Your task to perform on an android device: open app "VLC for Android" Image 0: 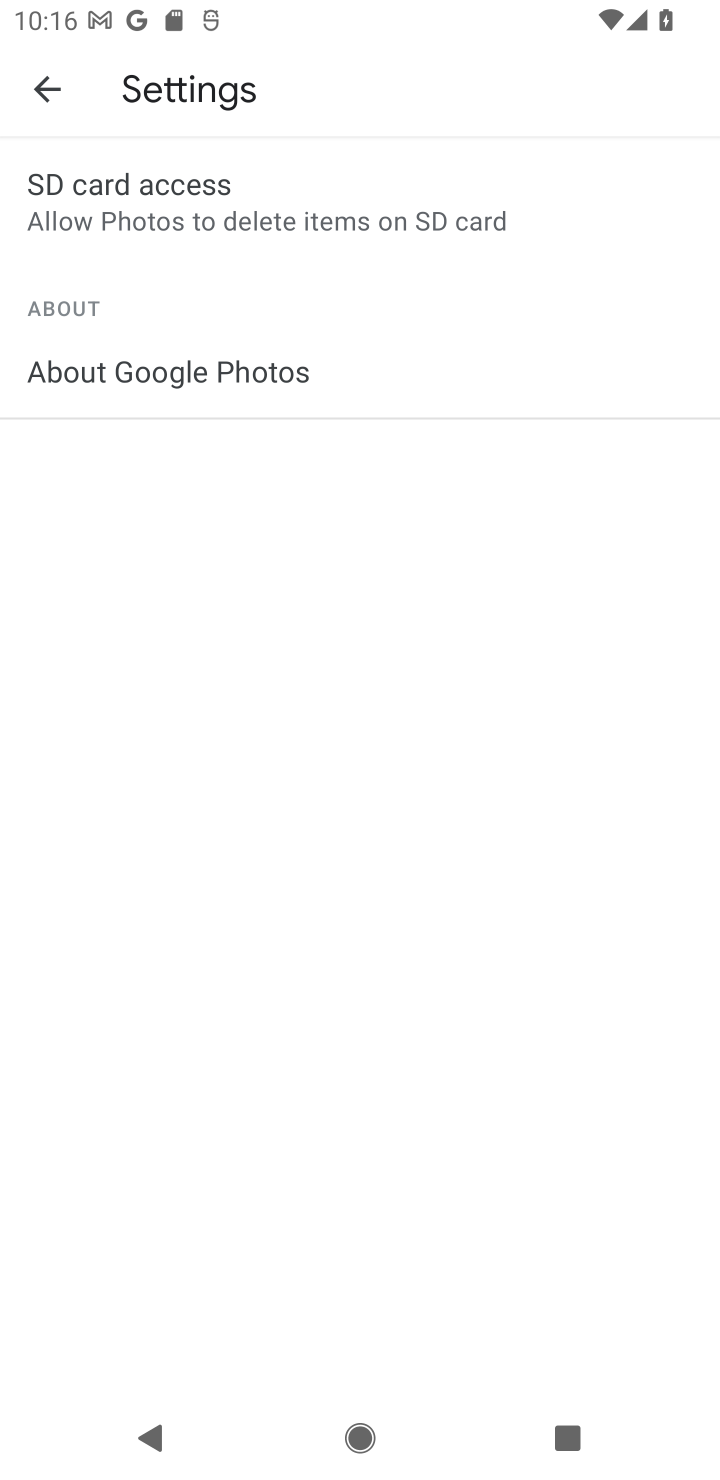
Step 0: press home button
Your task to perform on an android device: open app "VLC for Android" Image 1: 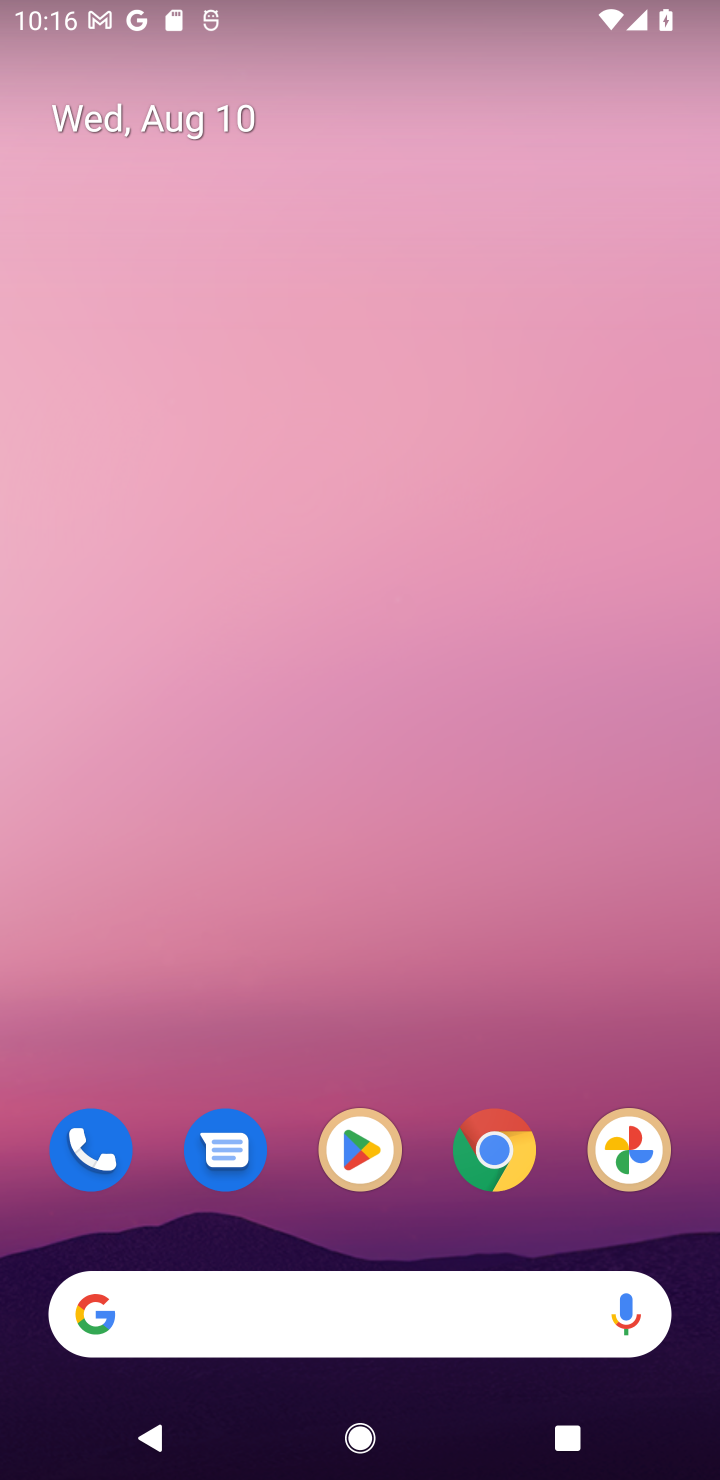
Step 1: click (343, 1179)
Your task to perform on an android device: open app "VLC for Android" Image 2: 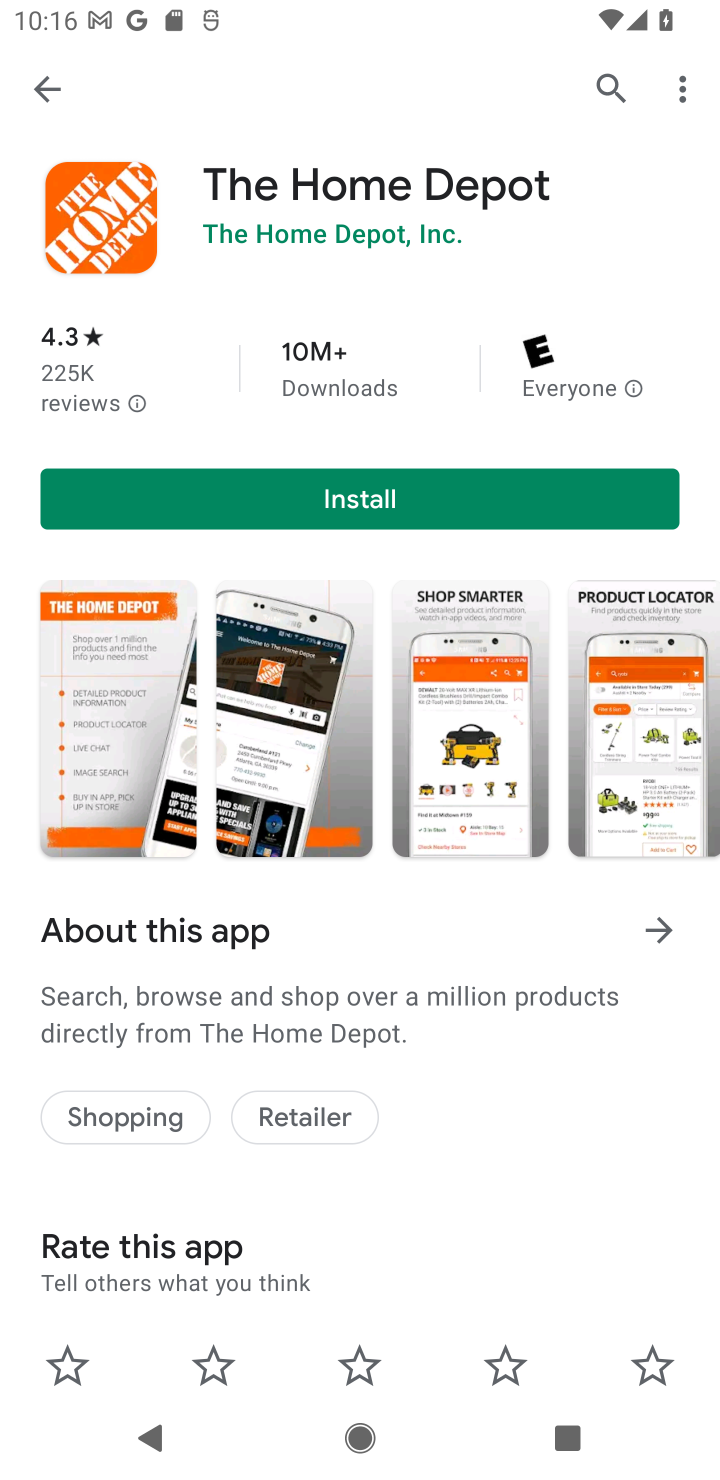
Step 2: click (597, 88)
Your task to perform on an android device: open app "VLC for Android" Image 3: 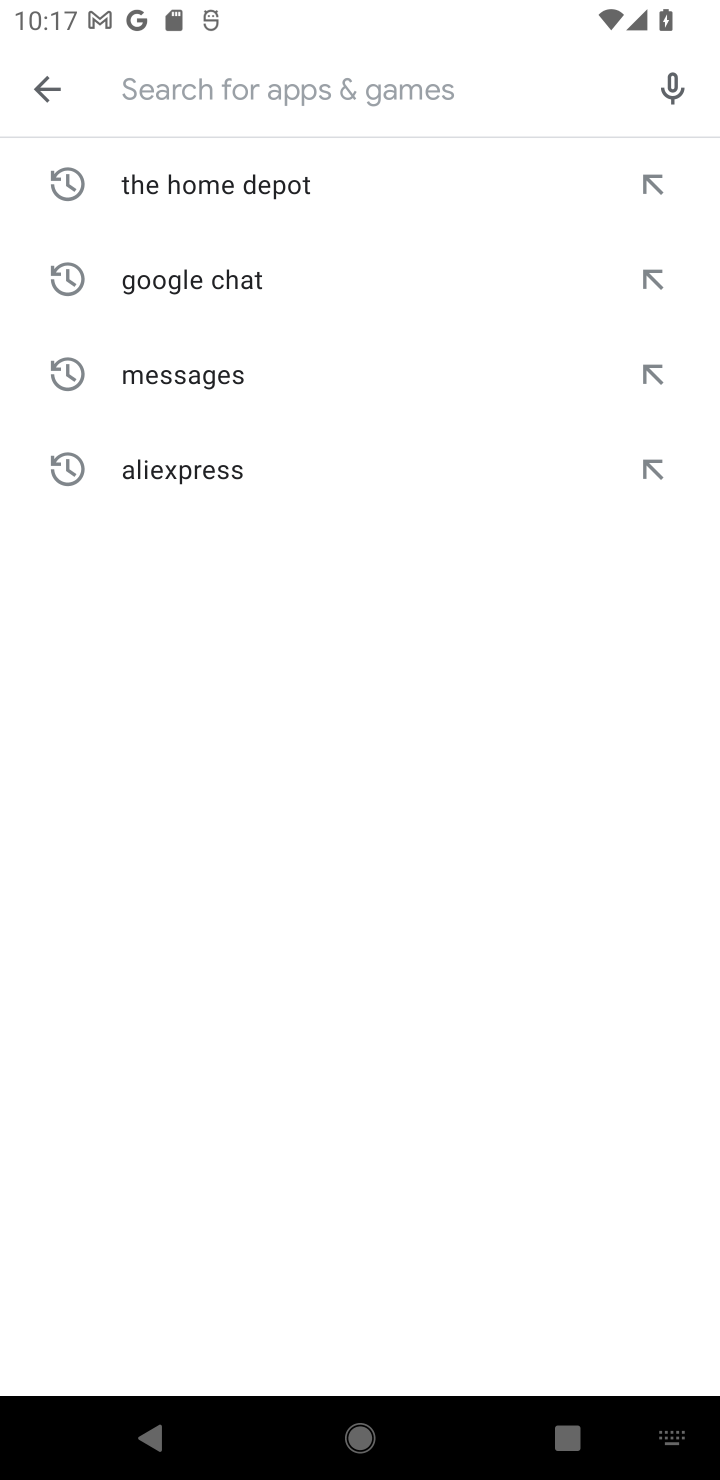
Step 3: type "VLC for Android"
Your task to perform on an android device: open app "VLC for Android" Image 4: 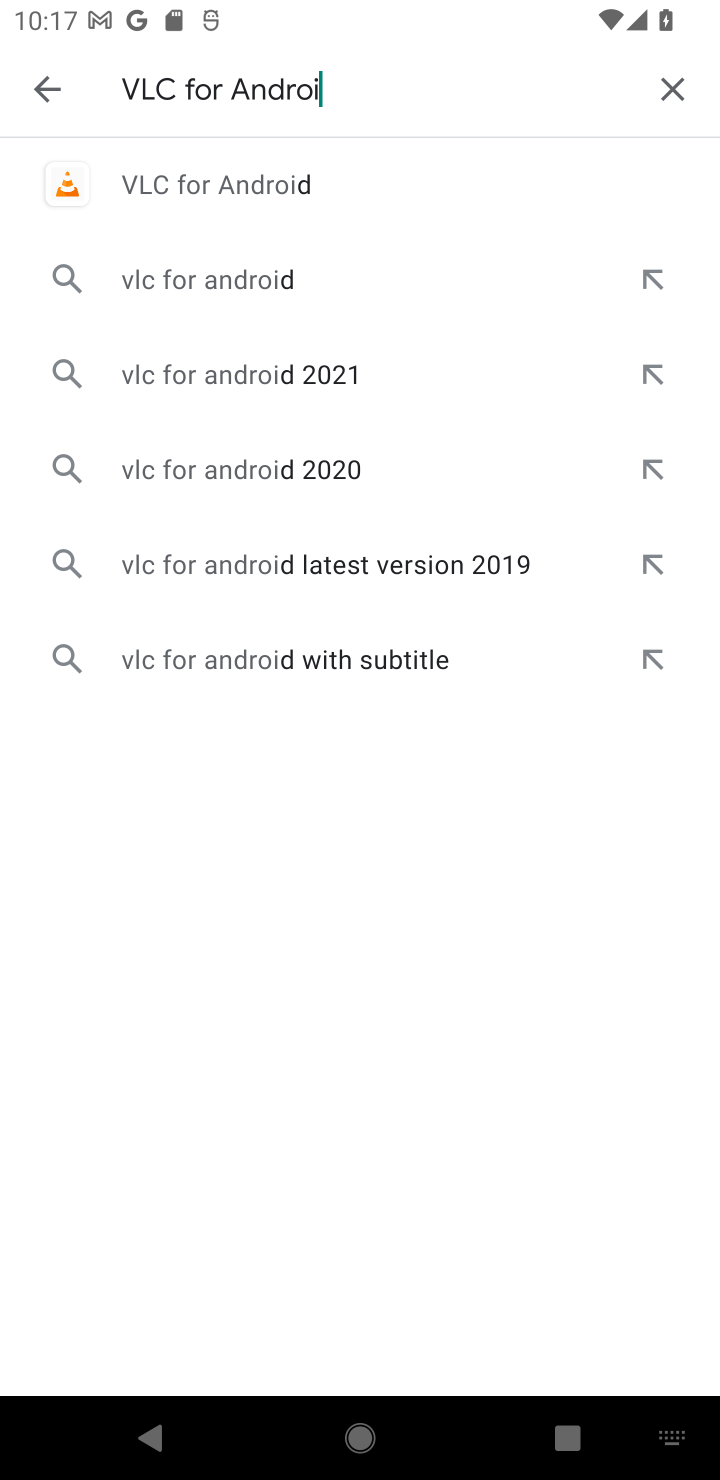
Step 4: type ""
Your task to perform on an android device: open app "VLC for Android" Image 5: 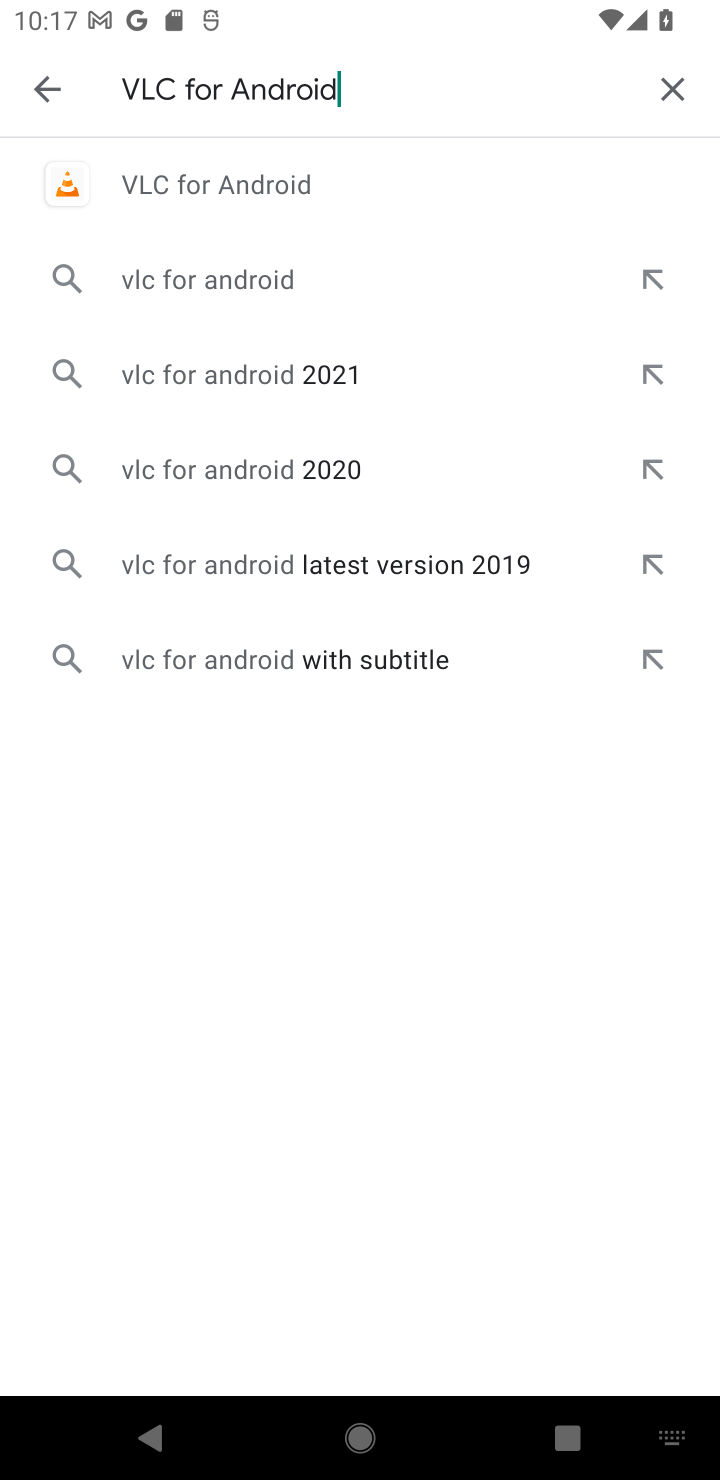
Step 5: click (327, 173)
Your task to perform on an android device: open app "VLC for Android" Image 6: 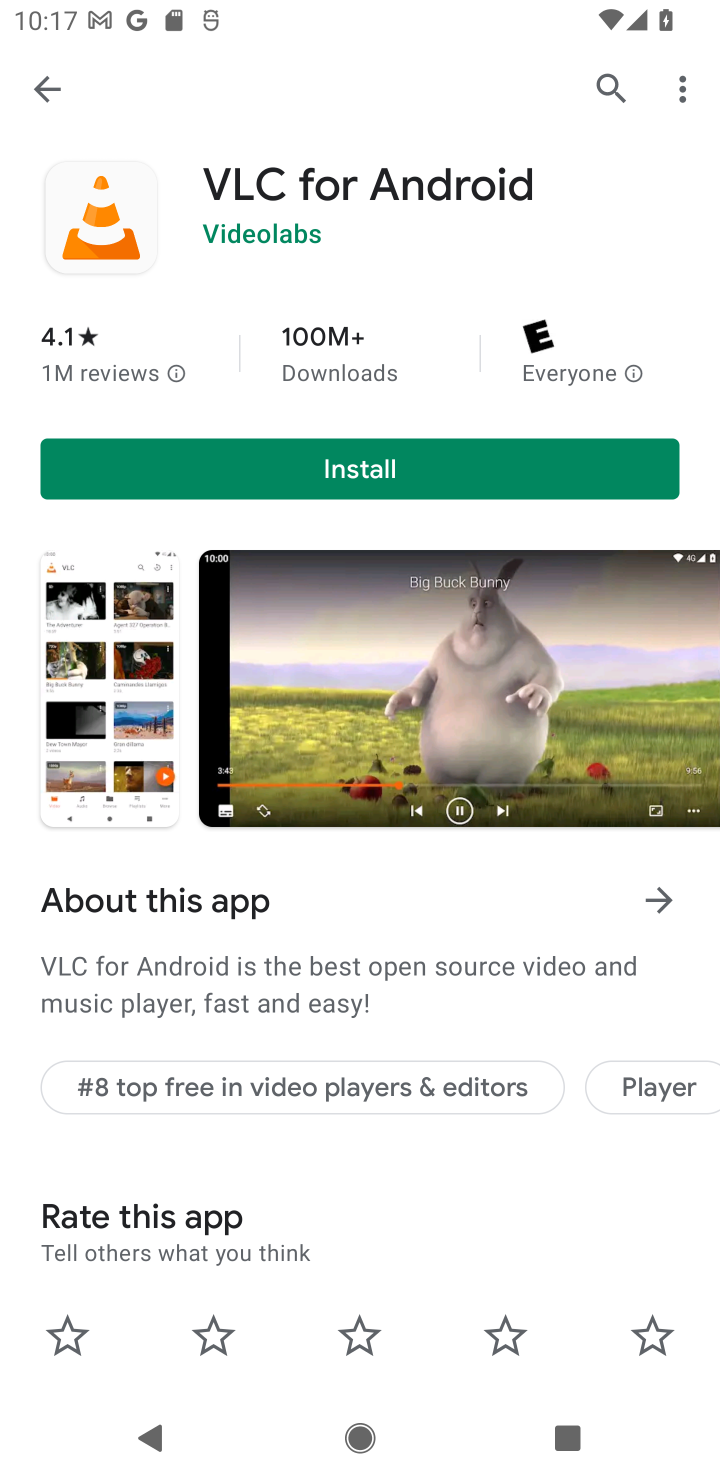
Step 6: task complete